Your task to perform on an android device: Open CNN.com Image 0: 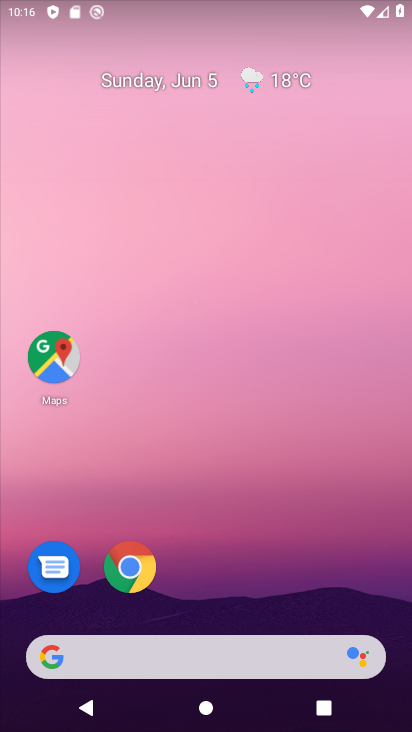
Step 0: click (111, 659)
Your task to perform on an android device: Open CNN.com Image 1: 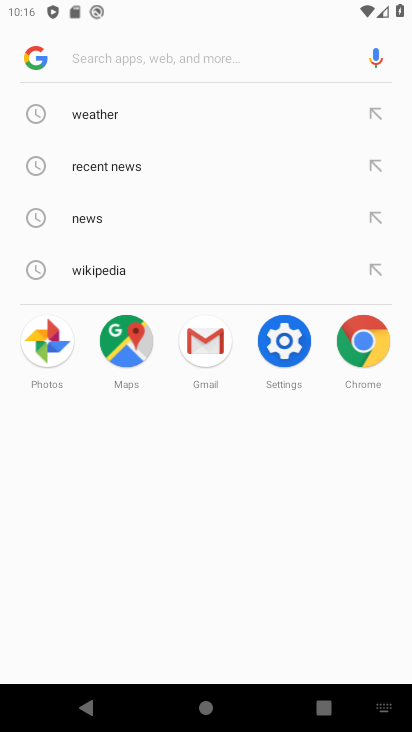
Step 1: type "cnn"
Your task to perform on an android device: Open CNN.com Image 2: 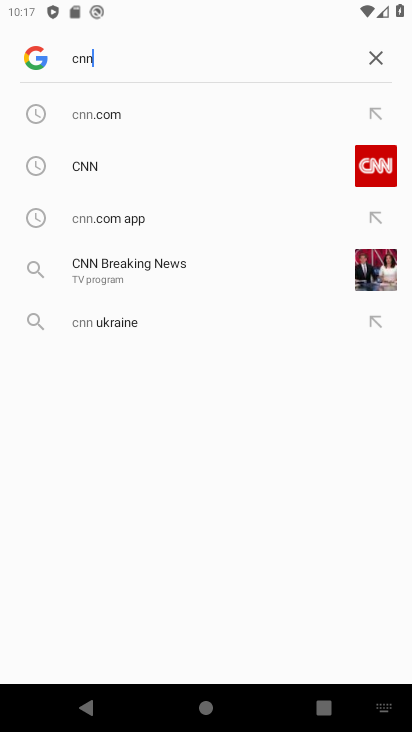
Step 2: click (304, 149)
Your task to perform on an android device: Open CNN.com Image 3: 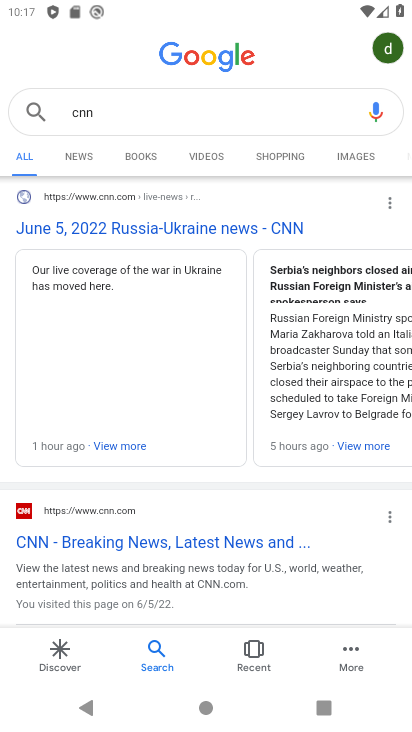
Step 3: click (157, 555)
Your task to perform on an android device: Open CNN.com Image 4: 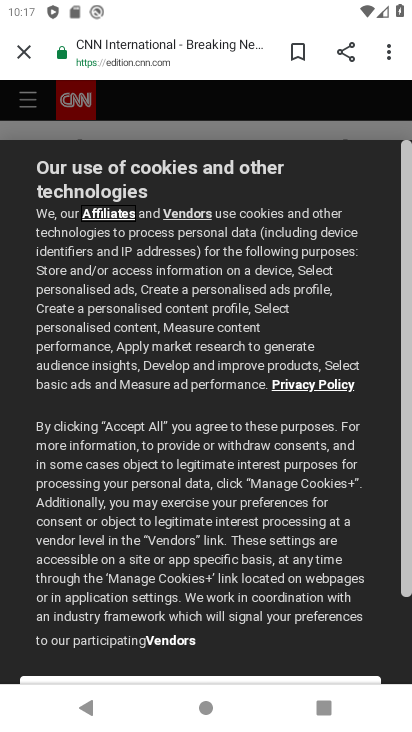
Step 4: task complete